Your task to perform on an android device: turn smart compose on in the gmail app Image 0: 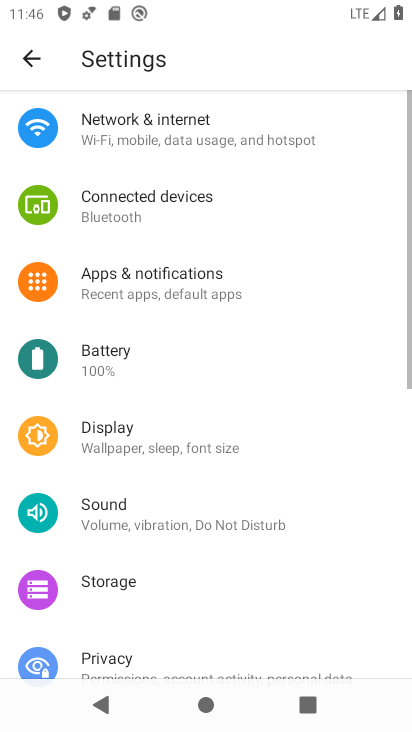
Step 0: drag from (187, 604) to (220, 451)
Your task to perform on an android device: turn smart compose on in the gmail app Image 1: 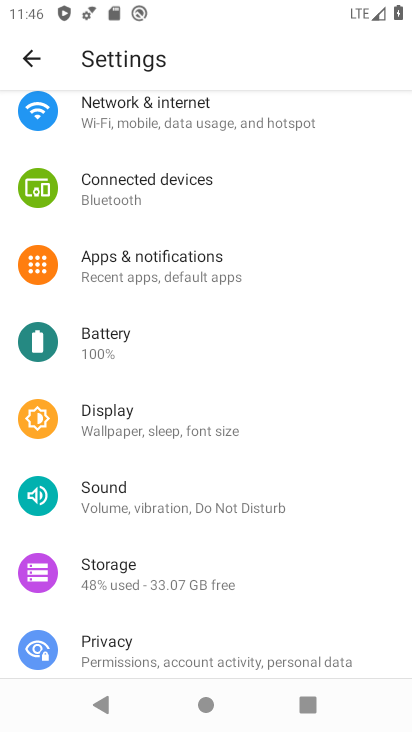
Step 1: drag from (178, 618) to (284, 229)
Your task to perform on an android device: turn smart compose on in the gmail app Image 2: 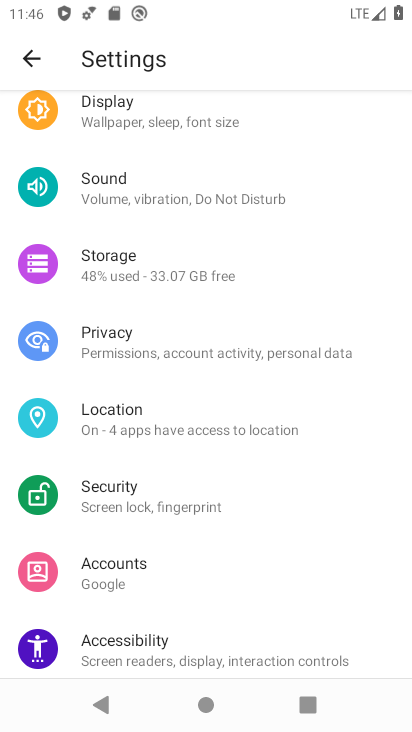
Step 2: drag from (222, 556) to (298, 202)
Your task to perform on an android device: turn smart compose on in the gmail app Image 3: 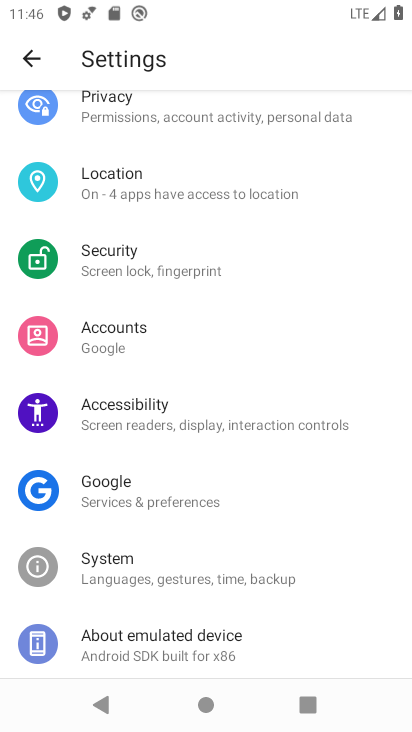
Step 3: drag from (221, 278) to (196, 527)
Your task to perform on an android device: turn smart compose on in the gmail app Image 4: 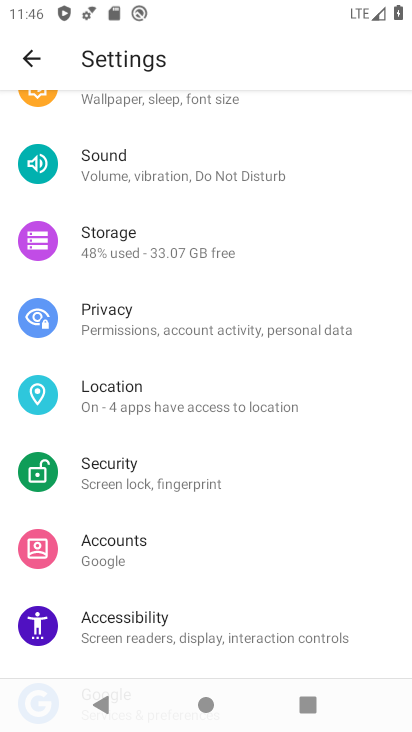
Step 4: press home button
Your task to perform on an android device: turn smart compose on in the gmail app Image 5: 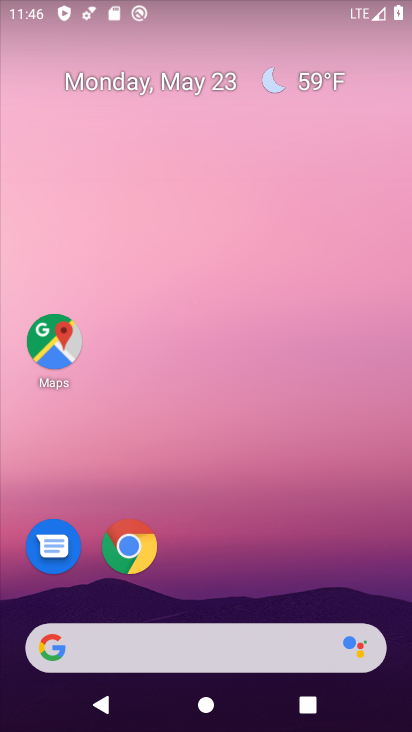
Step 5: drag from (178, 586) to (190, 202)
Your task to perform on an android device: turn smart compose on in the gmail app Image 6: 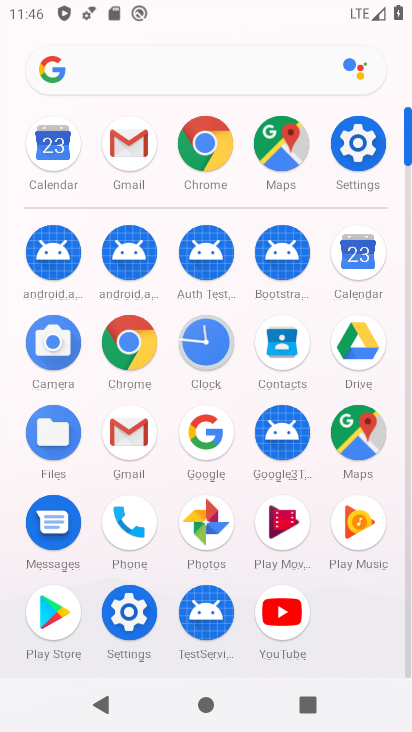
Step 6: click (121, 422)
Your task to perform on an android device: turn smart compose on in the gmail app Image 7: 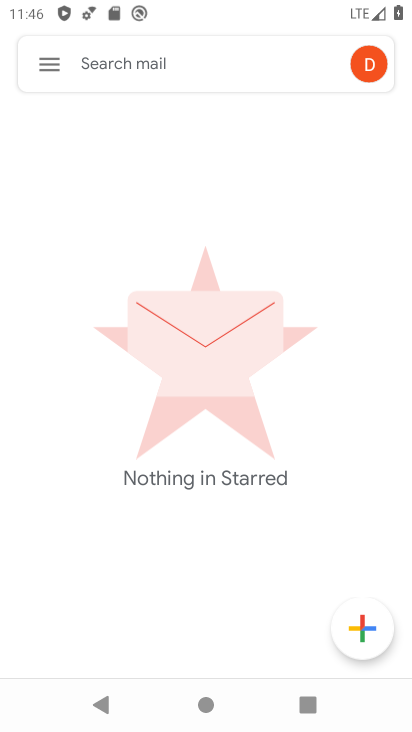
Step 7: click (48, 71)
Your task to perform on an android device: turn smart compose on in the gmail app Image 8: 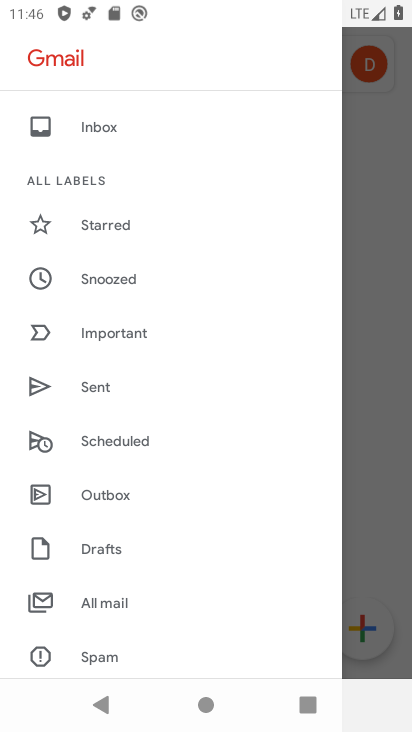
Step 8: drag from (166, 542) to (214, 201)
Your task to perform on an android device: turn smart compose on in the gmail app Image 9: 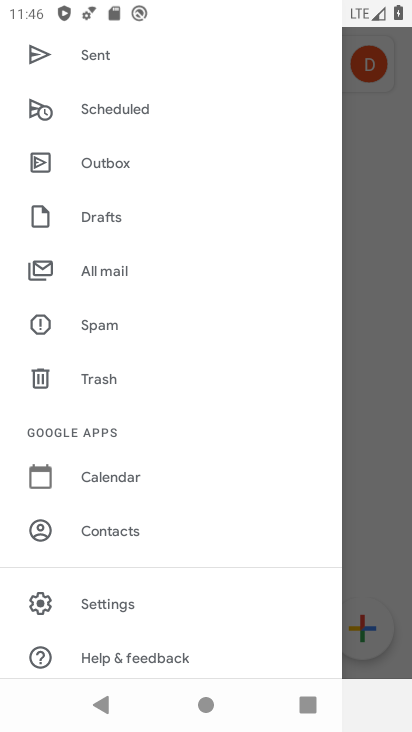
Step 9: click (104, 590)
Your task to perform on an android device: turn smart compose on in the gmail app Image 10: 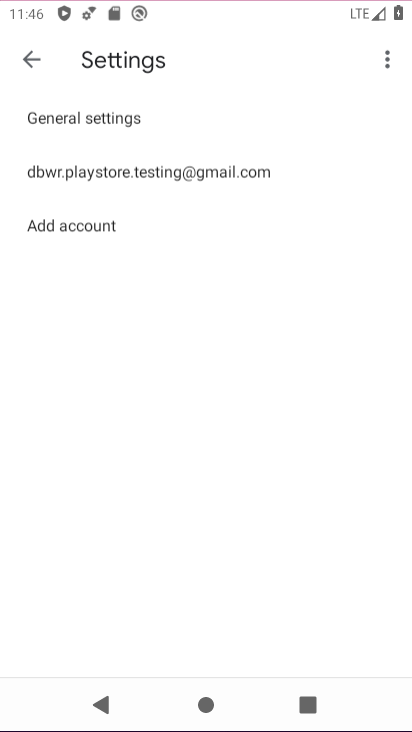
Step 10: drag from (136, 586) to (273, 166)
Your task to perform on an android device: turn smart compose on in the gmail app Image 11: 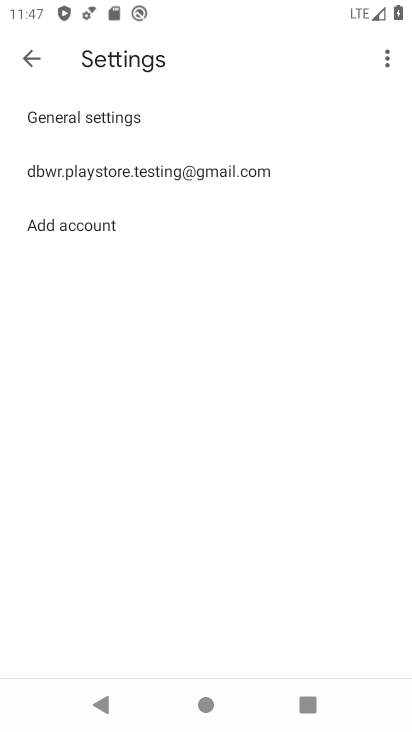
Step 11: click (197, 163)
Your task to perform on an android device: turn smart compose on in the gmail app Image 12: 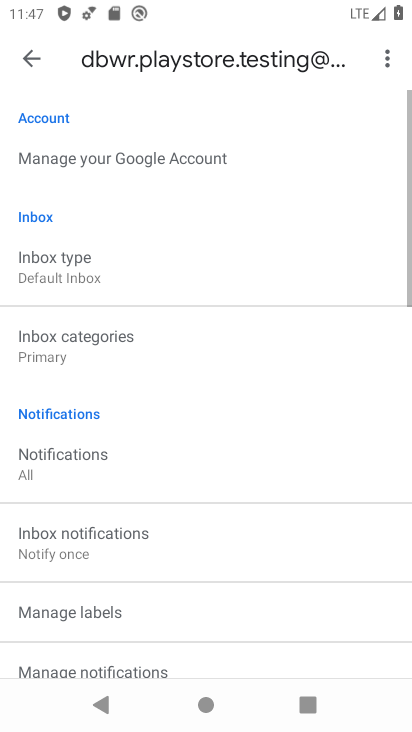
Step 12: task complete